Your task to perform on an android device: Open the stopwatch Image 0: 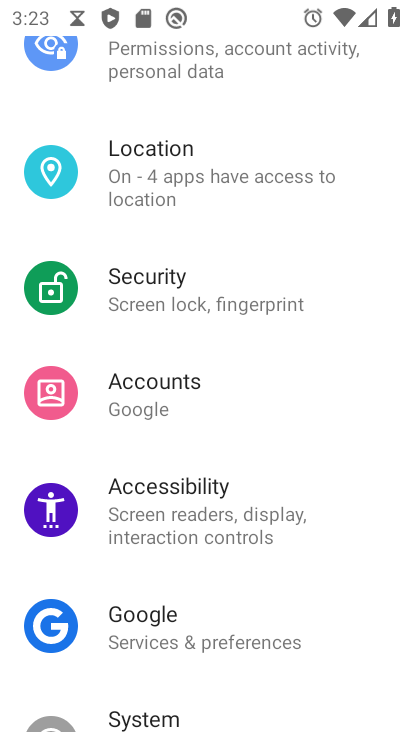
Step 0: press home button
Your task to perform on an android device: Open the stopwatch Image 1: 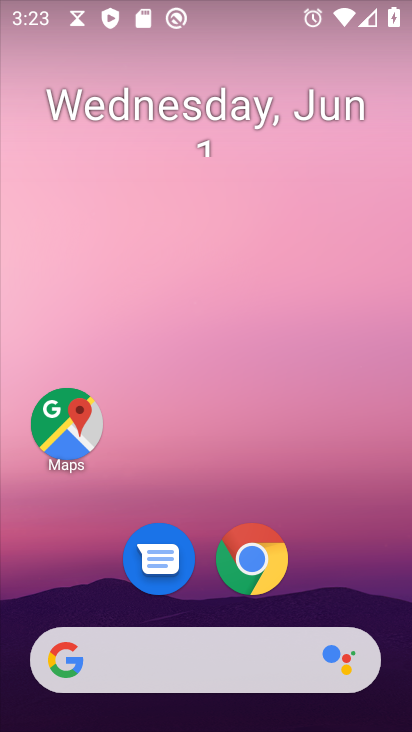
Step 1: drag from (343, 598) to (343, 8)
Your task to perform on an android device: Open the stopwatch Image 2: 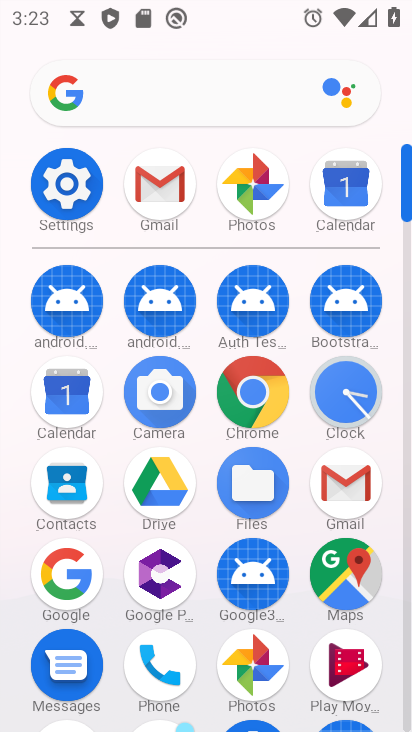
Step 2: click (339, 389)
Your task to perform on an android device: Open the stopwatch Image 3: 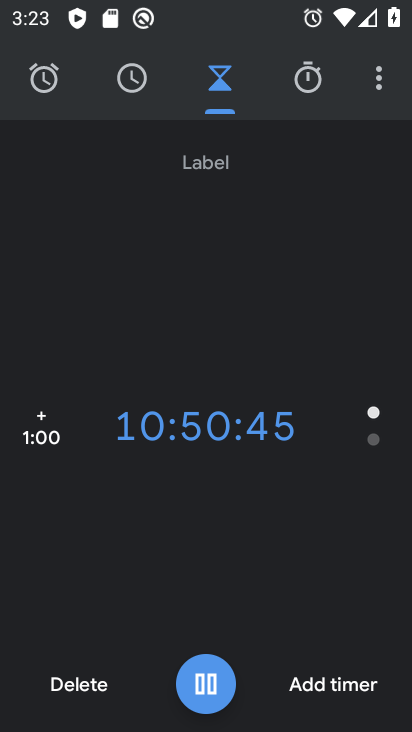
Step 3: click (294, 97)
Your task to perform on an android device: Open the stopwatch Image 4: 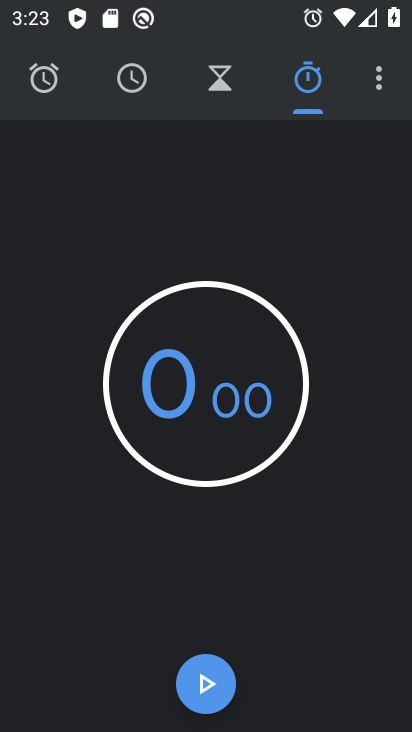
Step 4: task complete